Your task to perform on an android device: open chrome privacy settings Image 0: 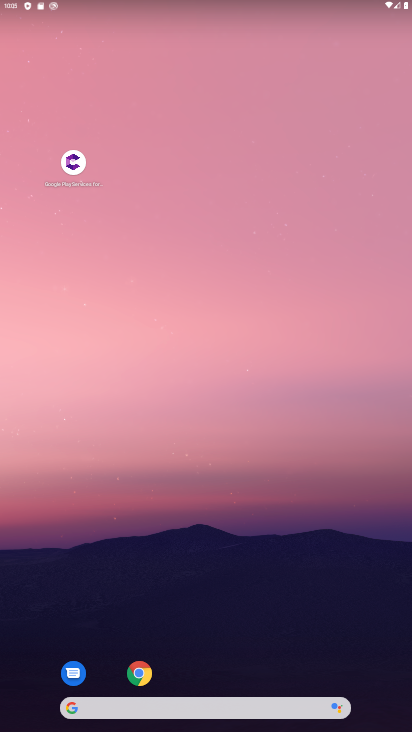
Step 0: drag from (194, 686) to (216, 153)
Your task to perform on an android device: open chrome privacy settings Image 1: 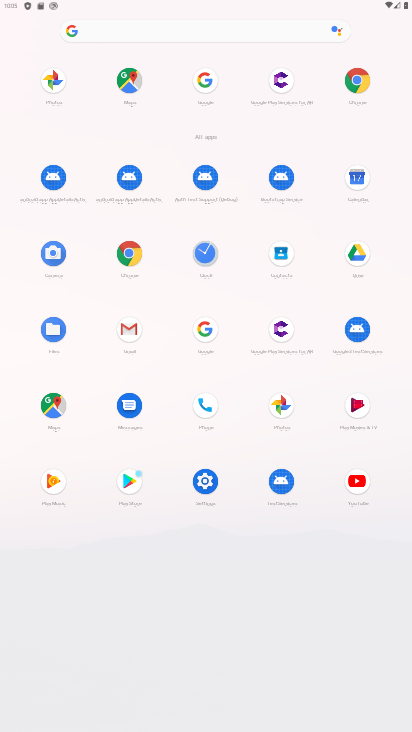
Step 1: click (138, 245)
Your task to perform on an android device: open chrome privacy settings Image 2: 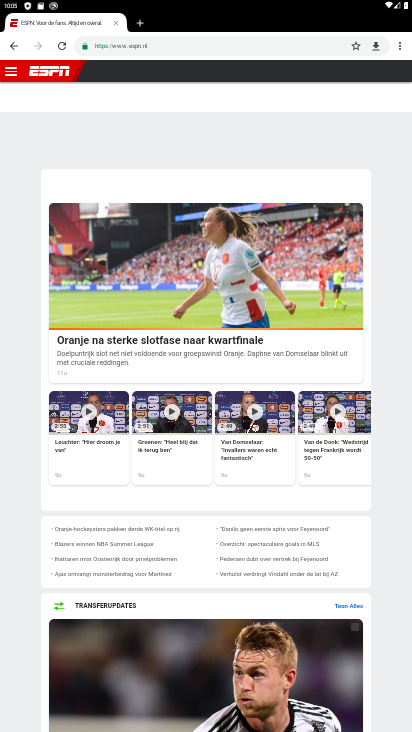
Step 2: drag from (399, 50) to (328, 305)
Your task to perform on an android device: open chrome privacy settings Image 3: 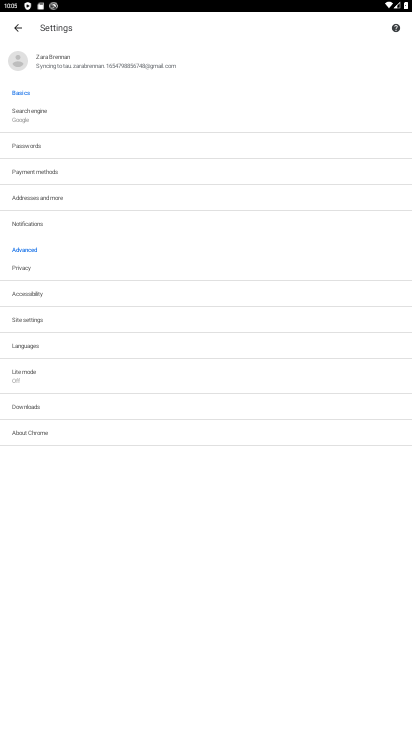
Step 3: click (73, 269)
Your task to perform on an android device: open chrome privacy settings Image 4: 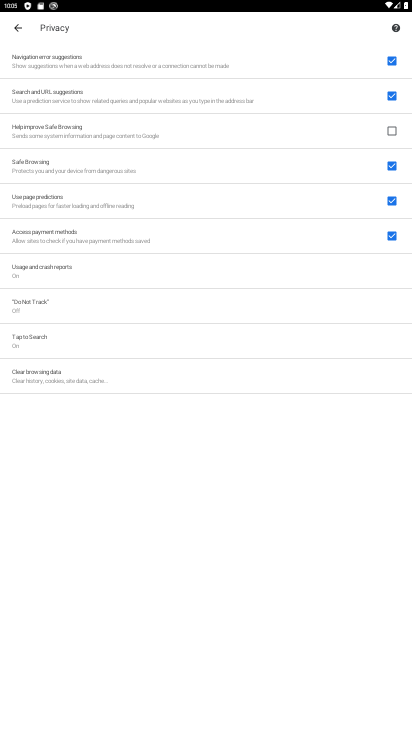
Step 4: task complete